Your task to perform on an android device: open sync settings in chrome Image 0: 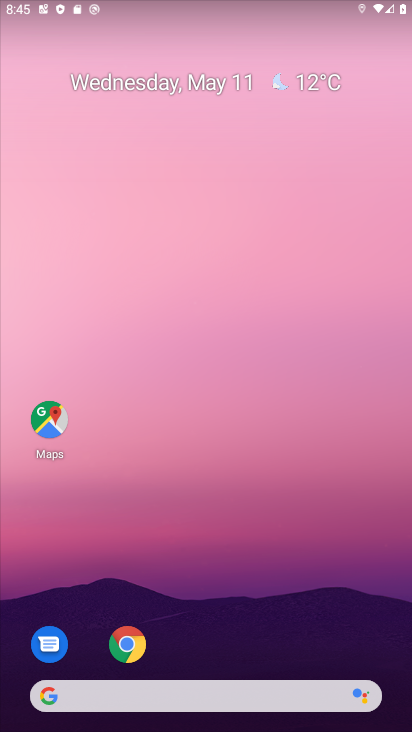
Step 0: click (136, 645)
Your task to perform on an android device: open sync settings in chrome Image 1: 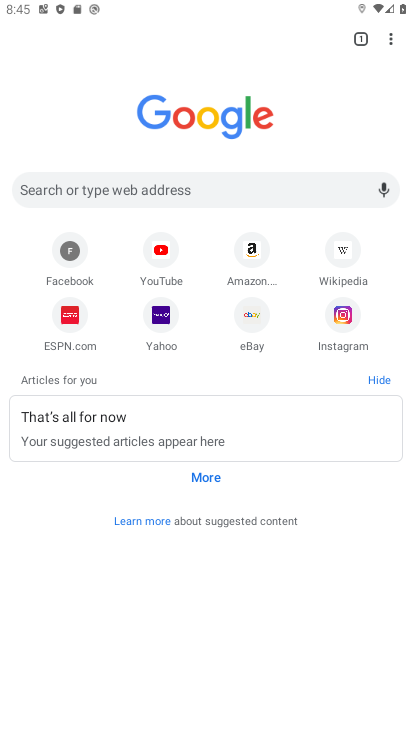
Step 1: click (392, 29)
Your task to perform on an android device: open sync settings in chrome Image 2: 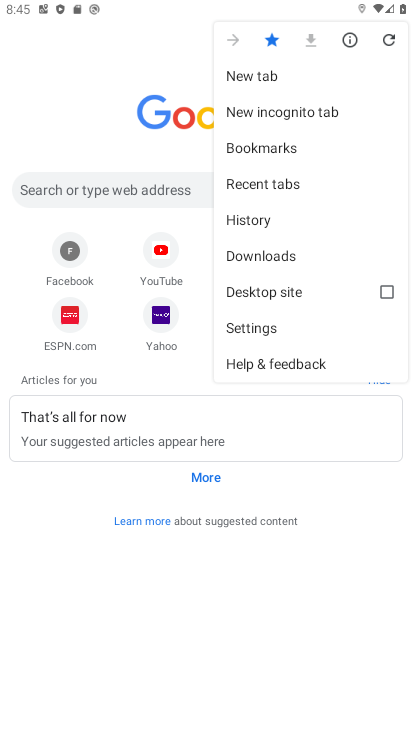
Step 2: click (264, 325)
Your task to perform on an android device: open sync settings in chrome Image 3: 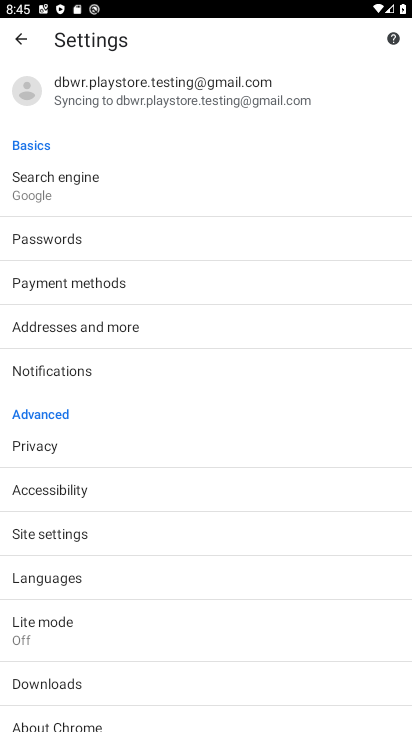
Step 3: click (60, 531)
Your task to perform on an android device: open sync settings in chrome Image 4: 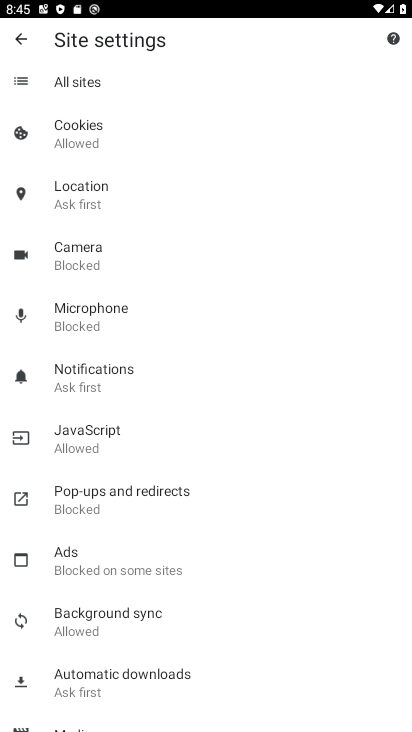
Step 4: click (121, 615)
Your task to perform on an android device: open sync settings in chrome Image 5: 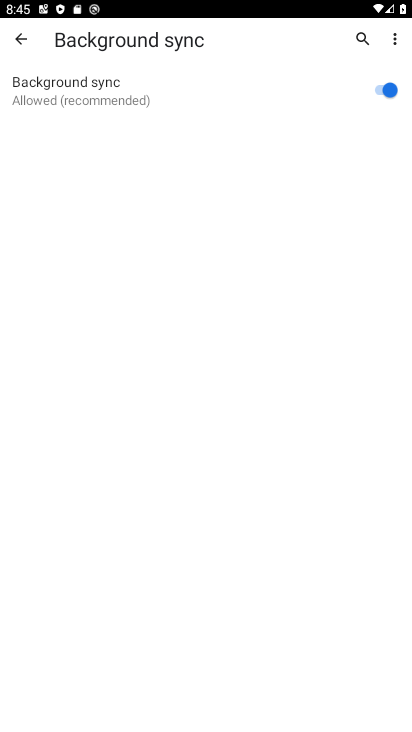
Step 5: task complete